Your task to perform on an android device: What time is it in Los Angeles? Image 0: 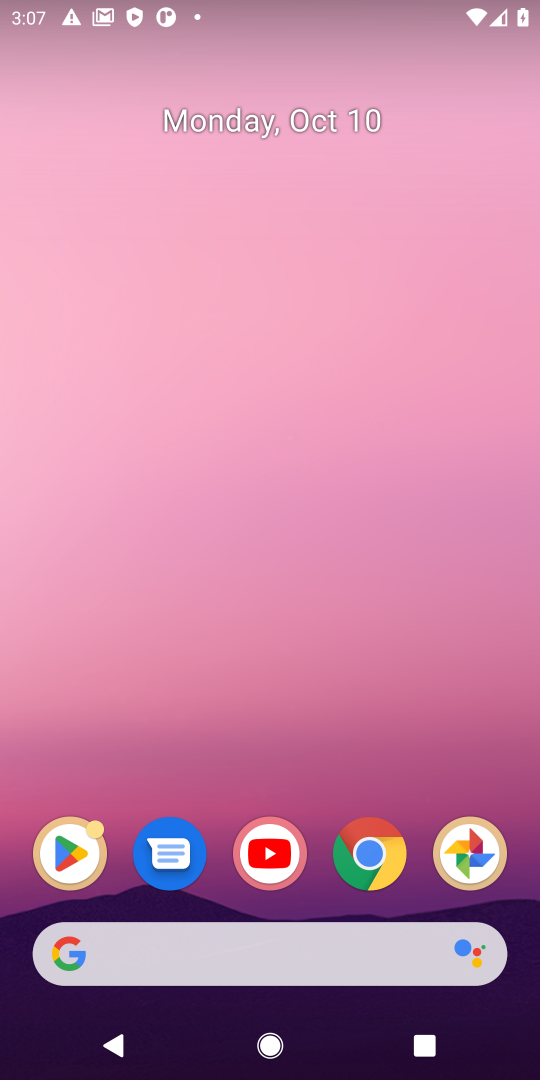
Step 0: click (381, 855)
Your task to perform on an android device: What time is it in Los Angeles? Image 1: 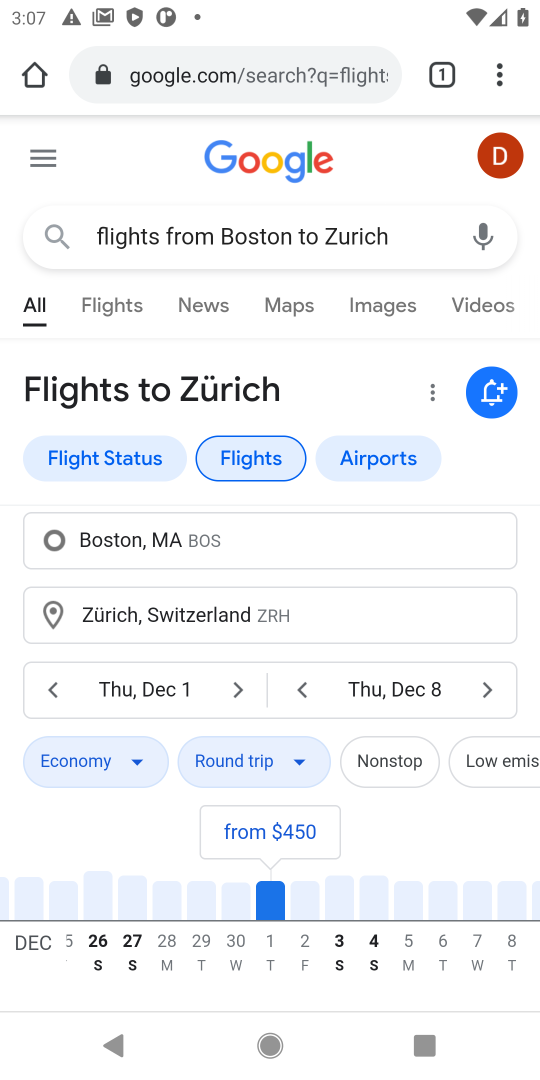
Step 1: click (293, 82)
Your task to perform on an android device: What time is it in Los Angeles? Image 2: 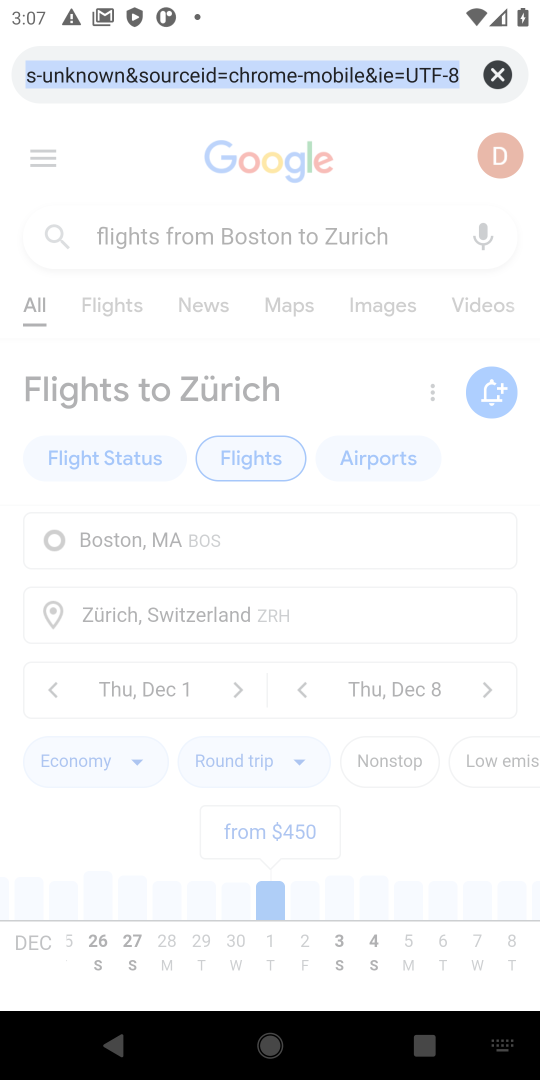
Step 2: type "What time is it in Los Angeles?"
Your task to perform on an android device: What time is it in Los Angeles? Image 3: 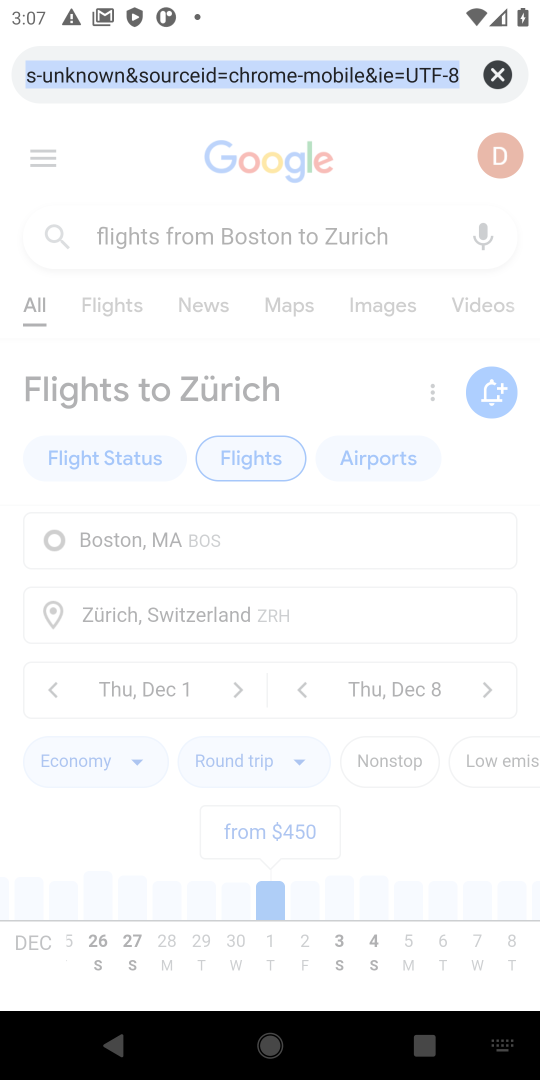
Step 3: click (358, 63)
Your task to perform on an android device: What time is it in Los Angeles? Image 4: 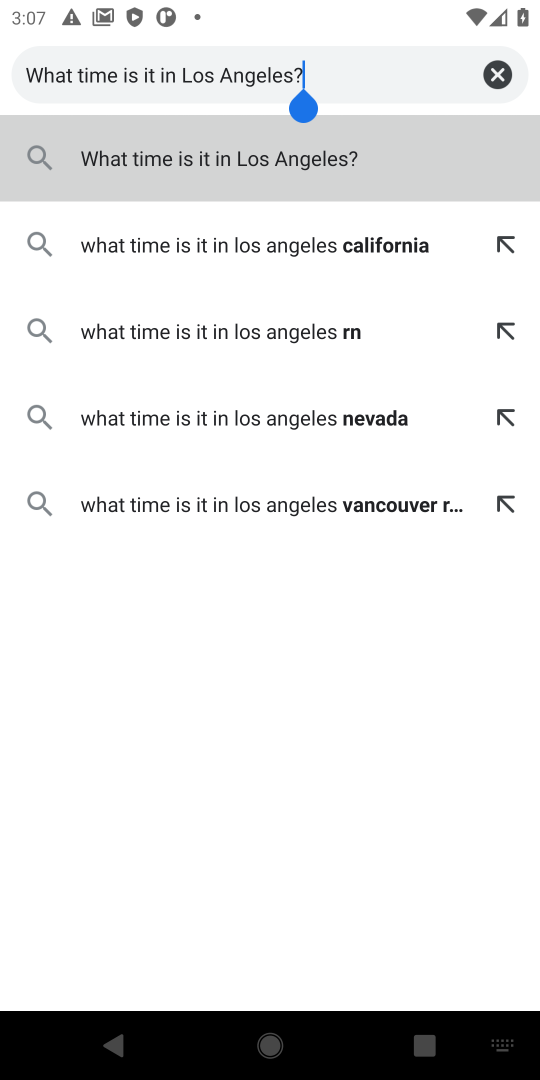
Step 4: click (339, 163)
Your task to perform on an android device: What time is it in Los Angeles? Image 5: 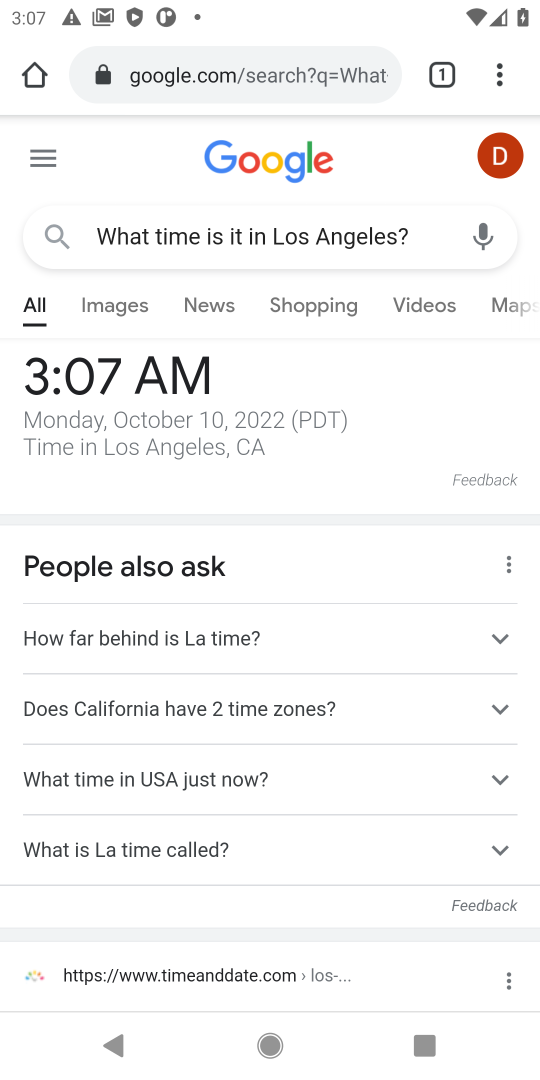
Step 5: task complete